Your task to perform on an android device: turn off data saver in the chrome app Image 0: 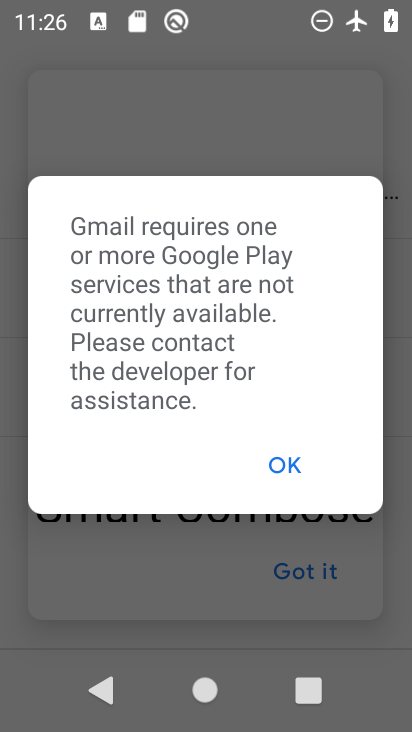
Step 0: press home button
Your task to perform on an android device: turn off data saver in the chrome app Image 1: 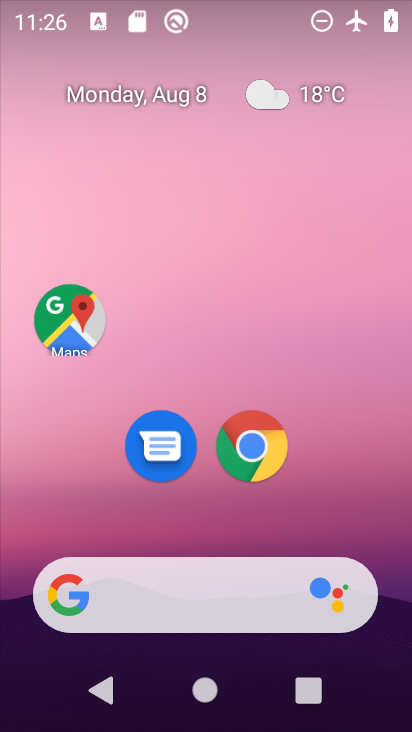
Step 1: click (251, 449)
Your task to perform on an android device: turn off data saver in the chrome app Image 2: 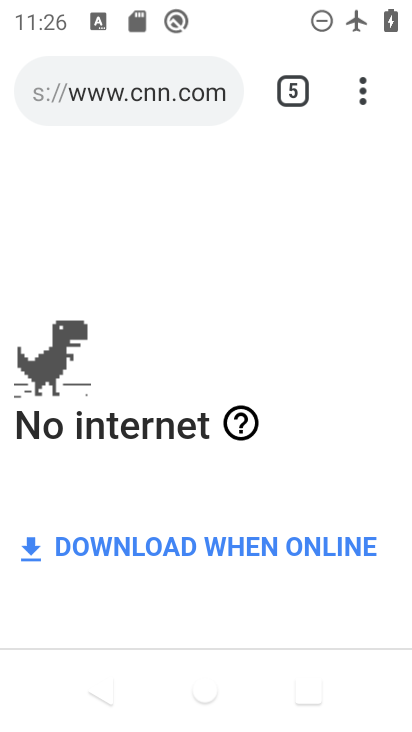
Step 2: click (359, 106)
Your task to perform on an android device: turn off data saver in the chrome app Image 3: 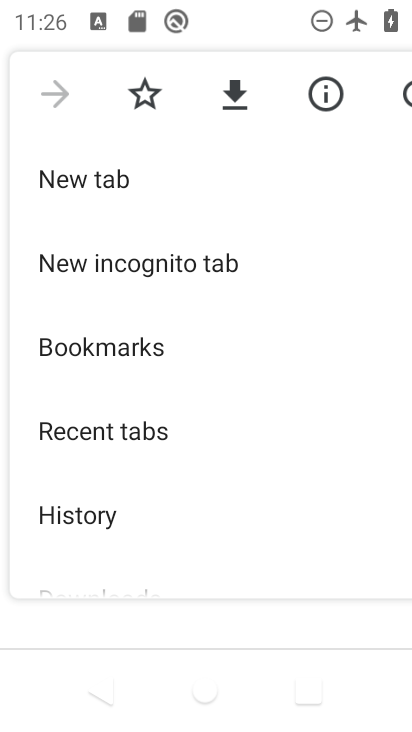
Step 3: drag from (201, 574) to (220, 335)
Your task to perform on an android device: turn off data saver in the chrome app Image 4: 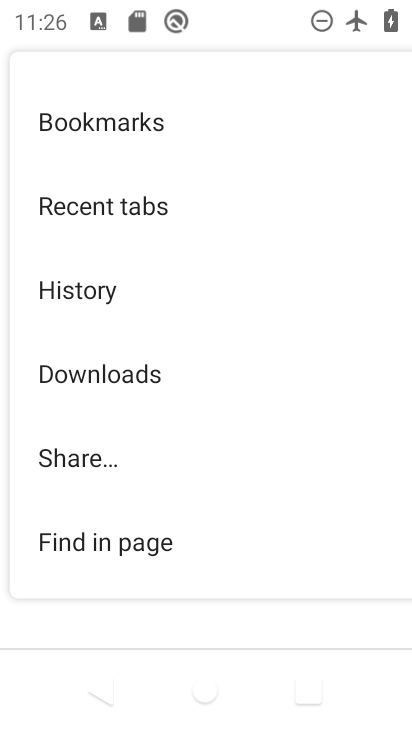
Step 4: drag from (237, 587) to (228, 258)
Your task to perform on an android device: turn off data saver in the chrome app Image 5: 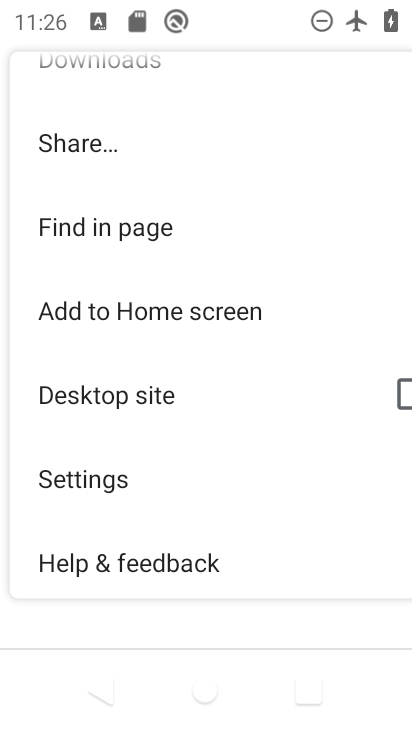
Step 5: click (112, 484)
Your task to perform on an android device: turn off data saver in the chrome app Image 6: 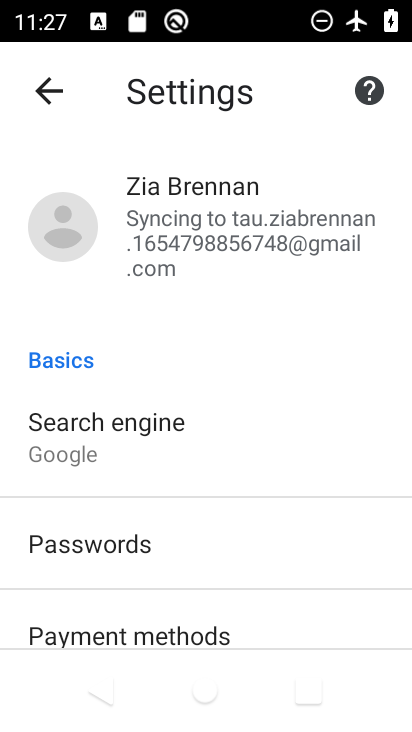
Step 6: drag from (286, 627) to (263, 206)
Your task to perform on an android device: turn off data saver in the chrome app Image 7: 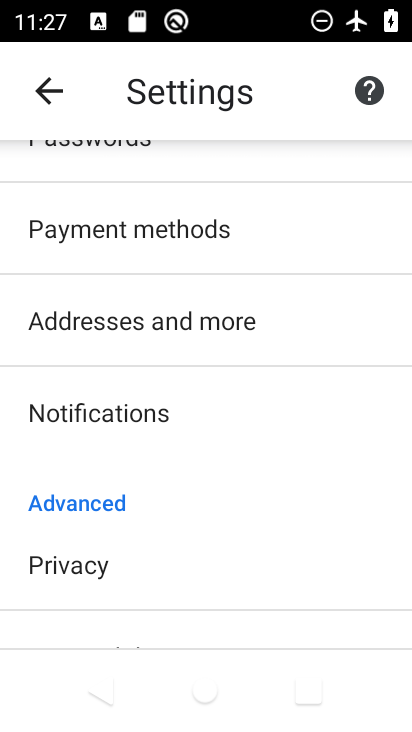
Step 7: drag from (250, 602) to (255, 219)
Your task to perform on an android device: turn off data saver in the chrome app Image 8: 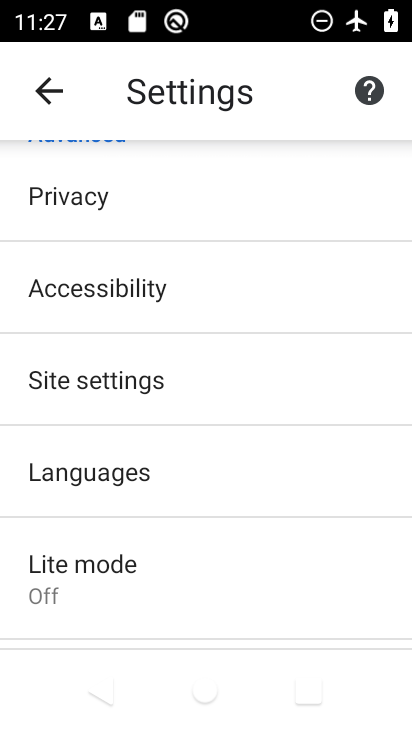
Step 8: click (95, 552)
Your task to perform on an android device: turn off data saver in the chrome app Image 9: 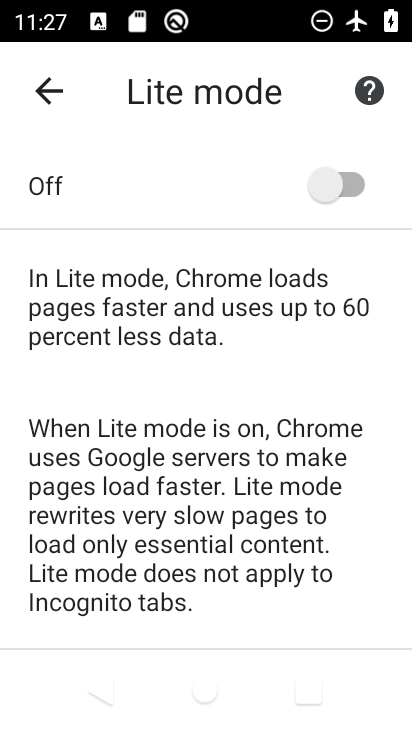
Step 9: task complete